Your task to perform on an android device: change the clock style Image 0: 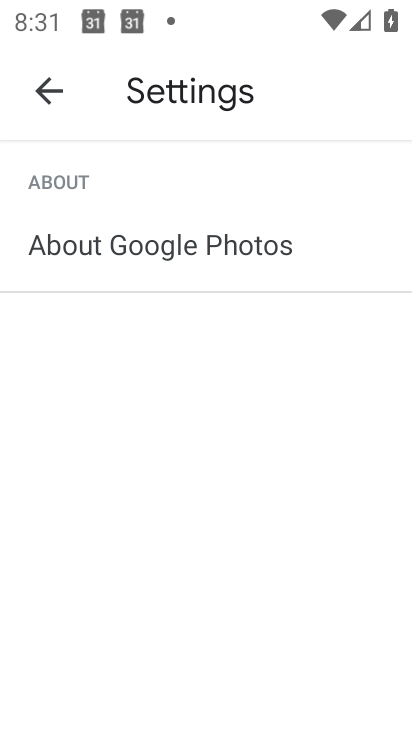
Step 0: press home button
Your task to perform on an android device: change the clock style Image 1: 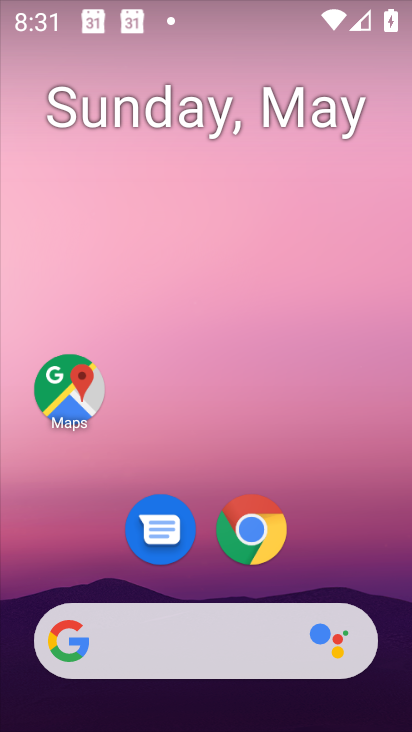
Step 1: drag from (383, 539) to (334, 113)
Your task to perform on an android device: change the clock style Image 2: 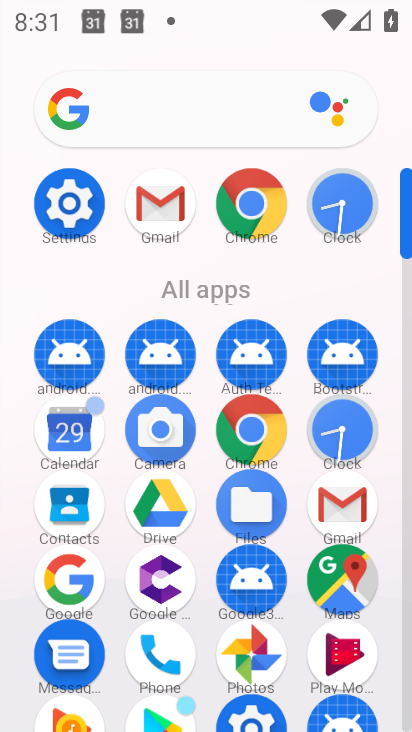
Step 2: click (342, 210)
Your task to perform on an android device: change the clock style Image 3: 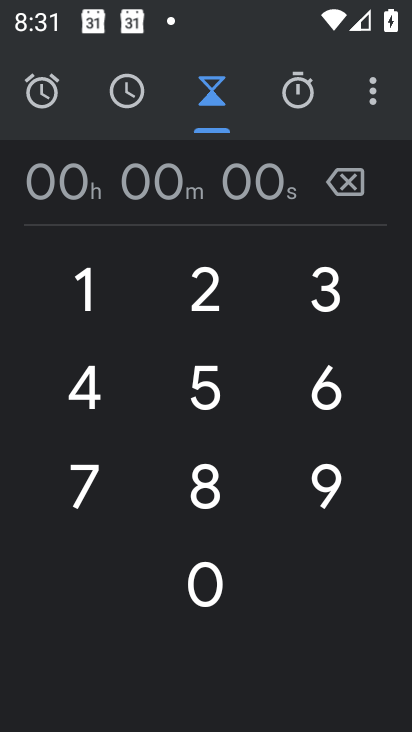
Step 3: click (376, 95)
Your task to perform on an android device: change the clock style Image 4: 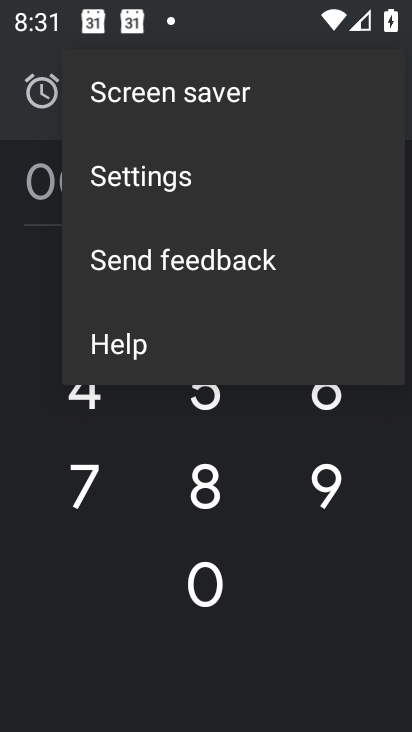
Step 4: click (263, 172)
Your task to perform on an android device: change the clock style Image 5: 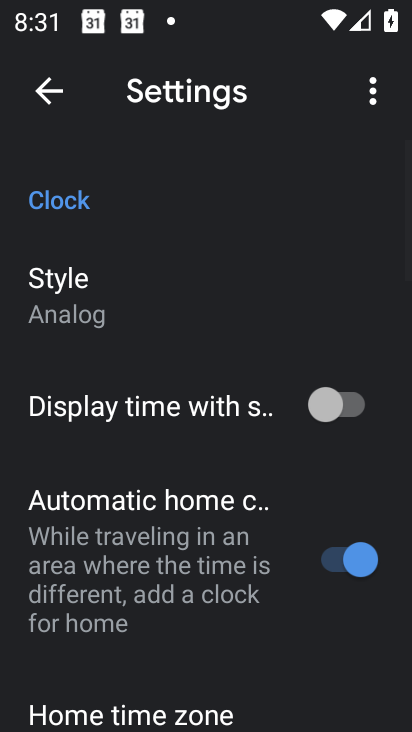
Step 5: click (174, 275)
Your task to perform on an android device: change the clock style Image 6: 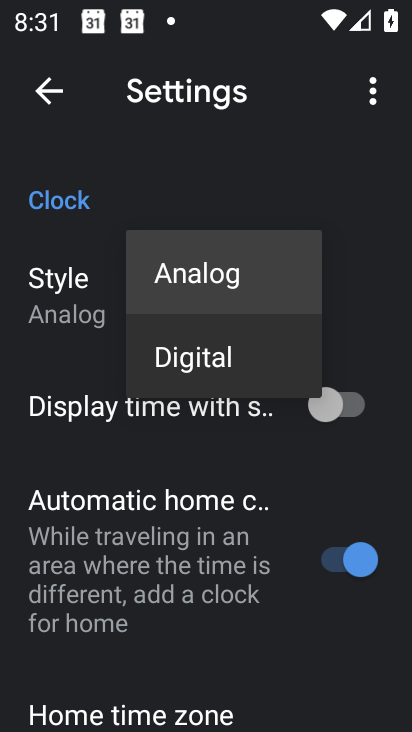
Step 6: click (183, 360)
Your task to perform on an android device: change the clock style Image 7: 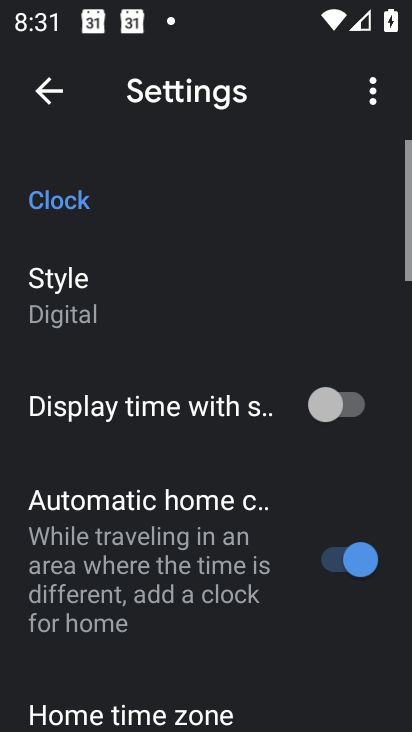
Step 7: task complete